Your task to perform on an android device: Open location settings Image 0: 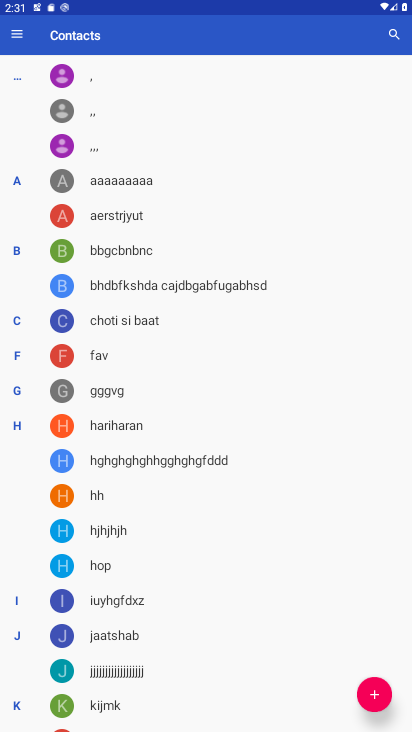
Step 0: press home button
Your task to perform on an android device: Open location settings Image 1: 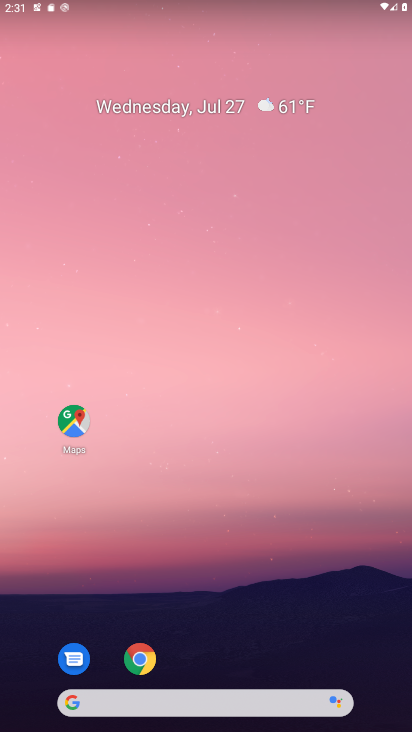
Step 1: drag from (208, 691) to (213, 84)
Your task to perform on an android device: Open location settings Image 2: 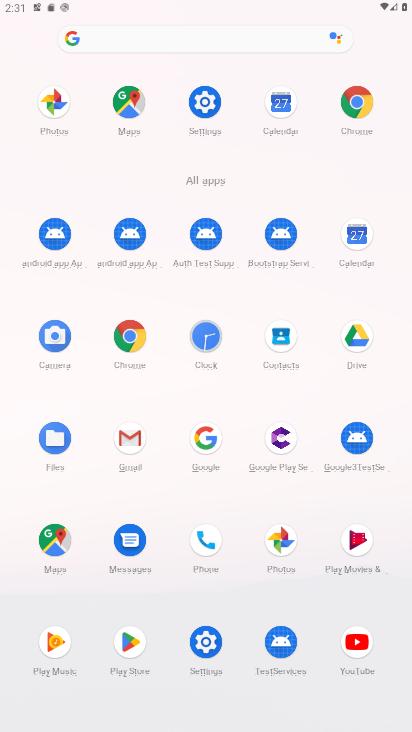
Step 2: click (208, 103)
Your task to perform on an android device: Open location settings Image 3: 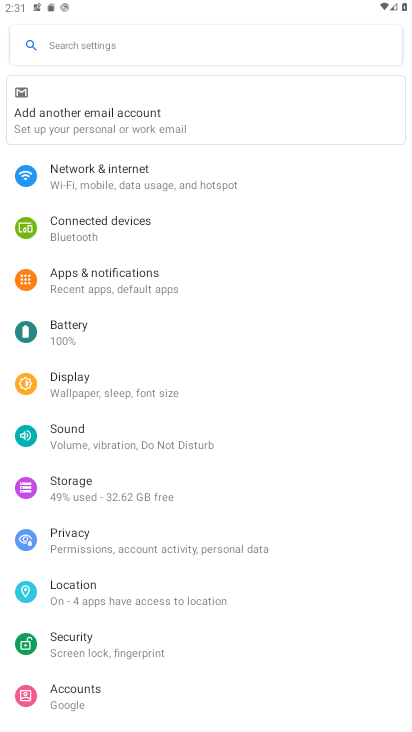
Step 3: click (62, 588)
Your task to perform on an android device: Open location settings Image 4: 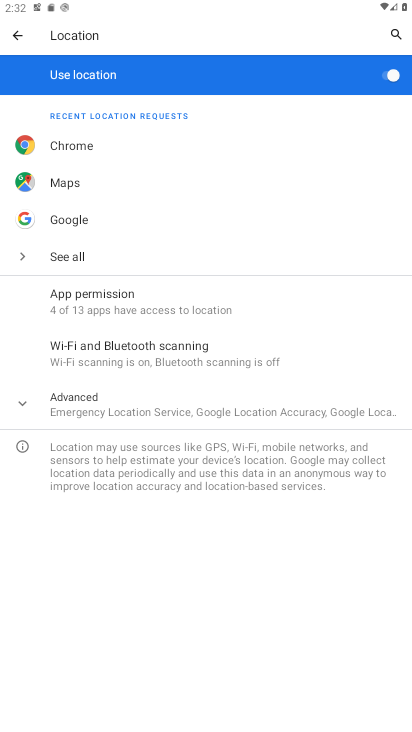
Step 4: click (62, 588)
Your task to perform on an android device: Open location settings Image 5: 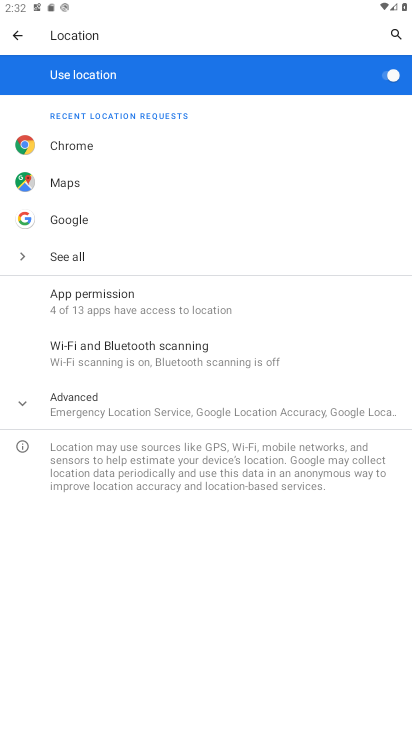
Step 5: task complete